Your task to perform on an android device: add a contact in the contacts app Image 0: 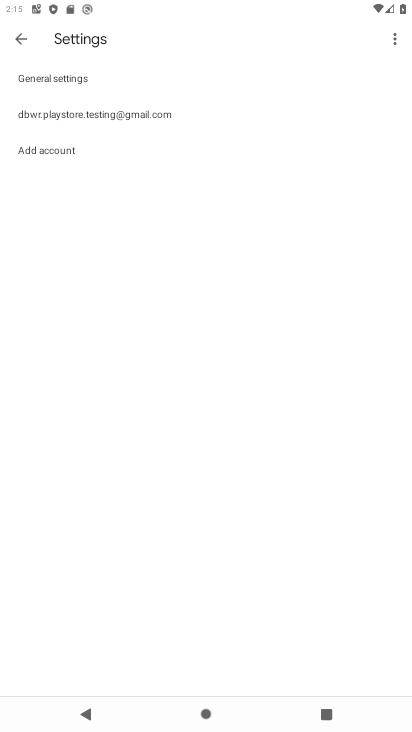
Step 0: press home button
Your task to perform on an android device: add a contact in the contacts app Image 1: 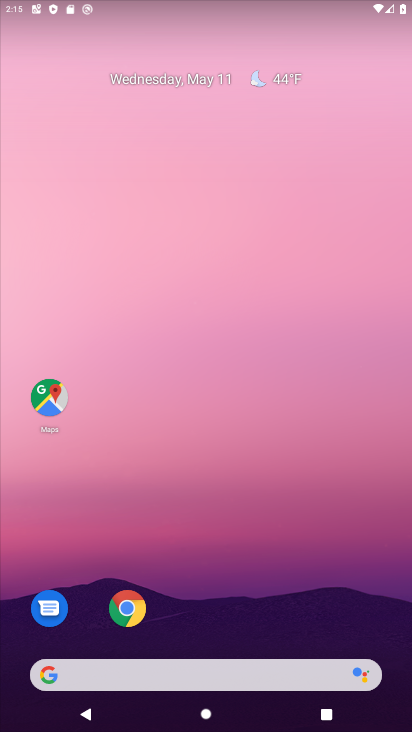
Step 1: drag from (182, 658) to (270, 188)
Your task to perform on an android device: add a contact in the contacts app Image 2: 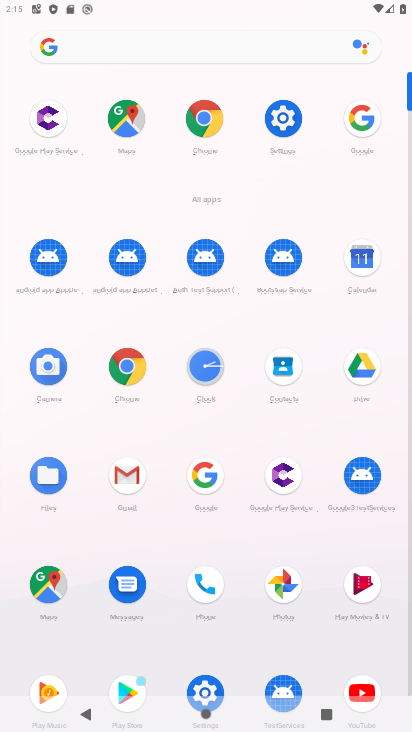
Step 2: click (271, 382)
Your task to perform on an android device: add a contact in the contacts app Image 3: 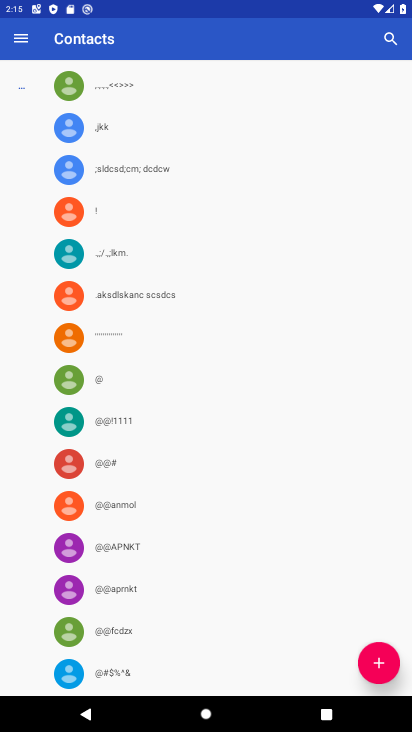
Step 3: click (388, 667)
Your task to perform on an android device: add a contact in the contacts app Image 4: 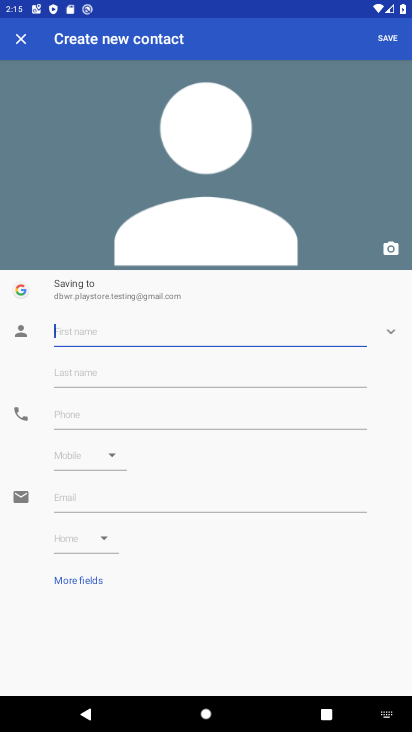
Step 4: type "jkjkjkjkjk"
Your task to perform on an android device: add a contact in the contacts app Image 5: 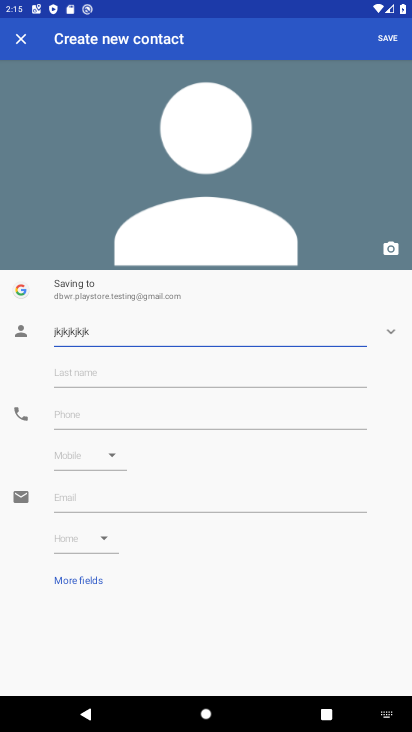
Step 5: click (99, 419)
Your task to perform on an android device: add a contact in the contacts app Image 6: 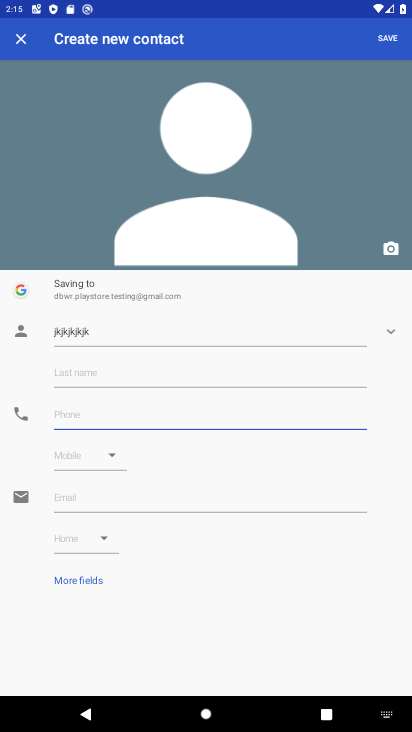
Step 6: type "232323232"
Your task to perform on an android device: add a contact in the contacts app Image 7: 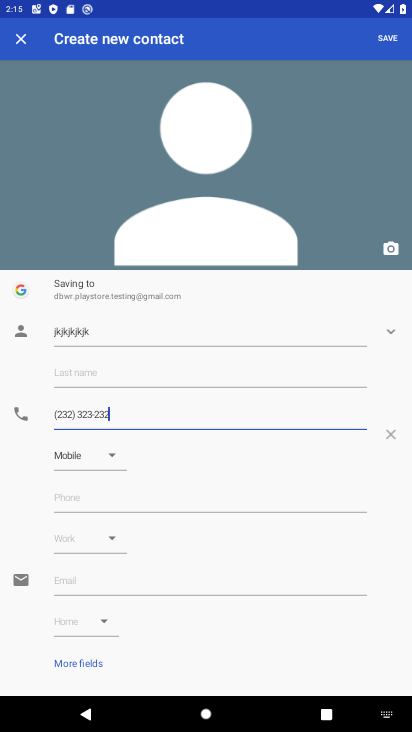
Step 7: click (399, 40)
Your task to perform on an android device: add a contact in the contacts app Image 8: 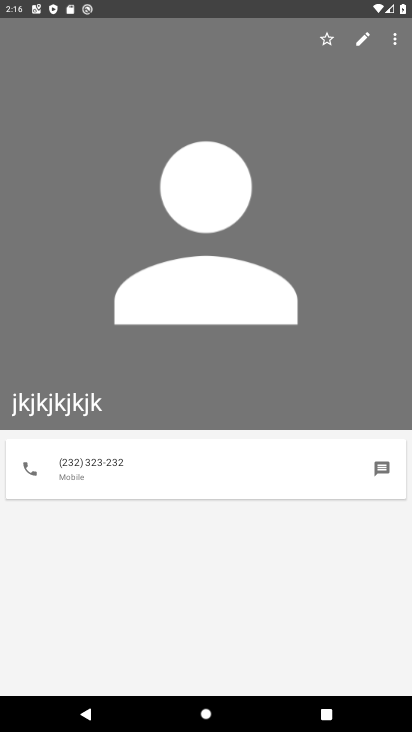
Step 8: task complete